Your task to perform on an android device: find snoozed emails in the gmail app Image 0: 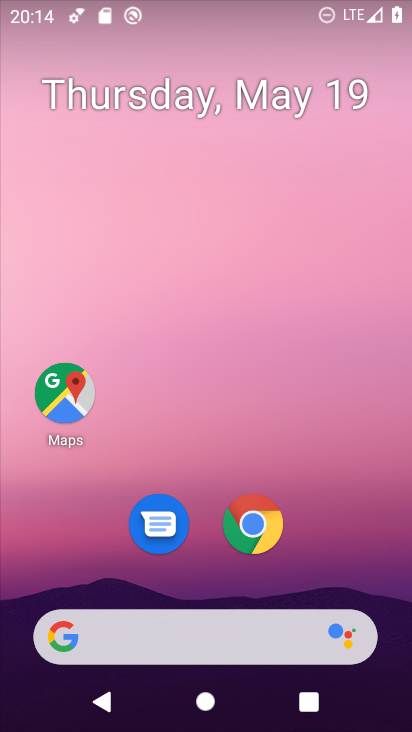
Step 0: drag from (308, 521) to (340, 46)
Your task to perform on an android device: find snoozed emails in the gmail app Image 1: 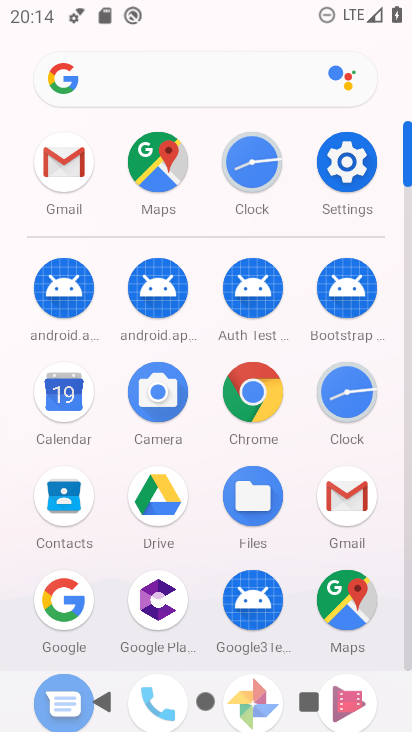
Step 1: click (71, 177)
Your task to perform on an android device: find snoozed emails in the gmail app Image 2: 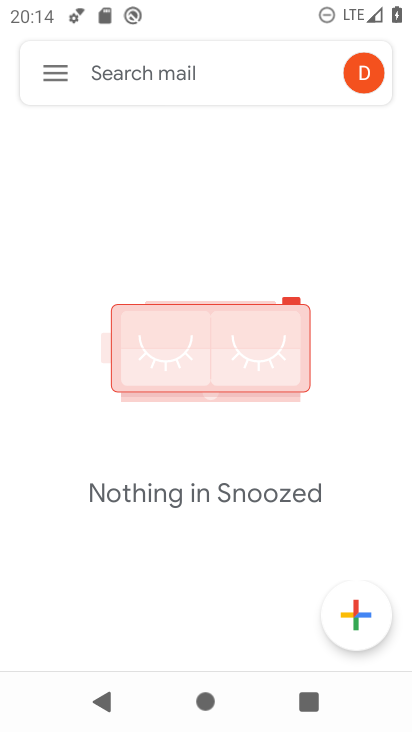
Step 2: task complete